Your task to perform on an android device: Open the map Image 0: 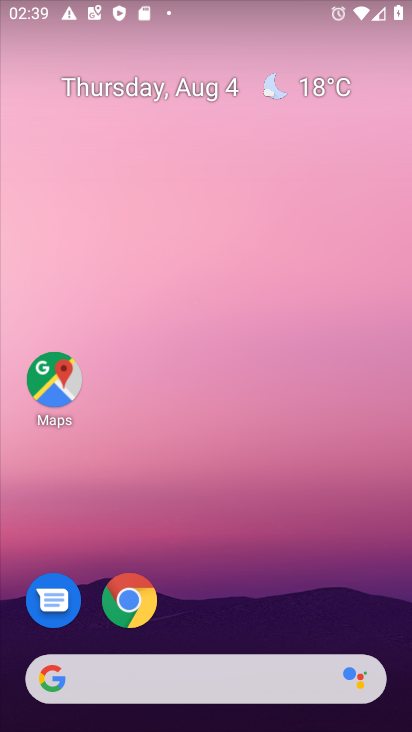
Step 0: press home button
Your task to perform on an android device: Open the map Image 1: 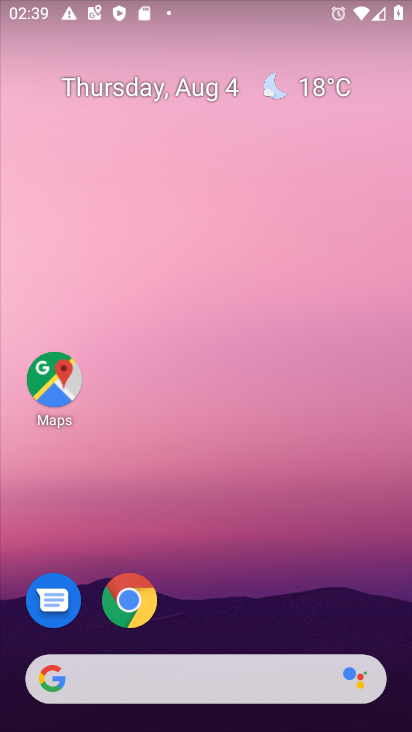
Step 1: click (54, 383)
Your task to perform on an android device: Open the map Image 2: 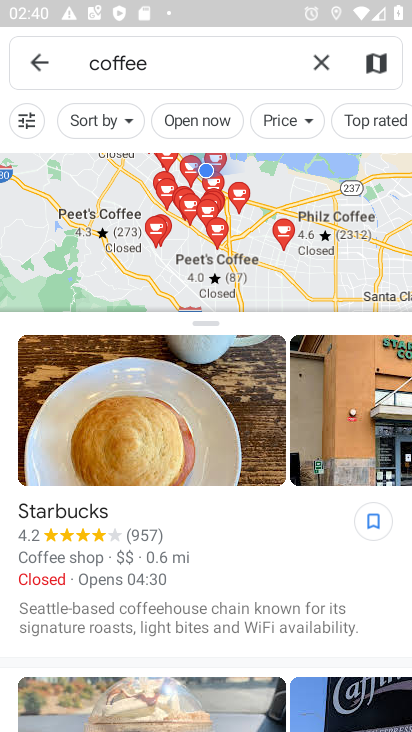
Step 2: click (41, 51)
Your task to perform on an android device: Open the map Image 3: 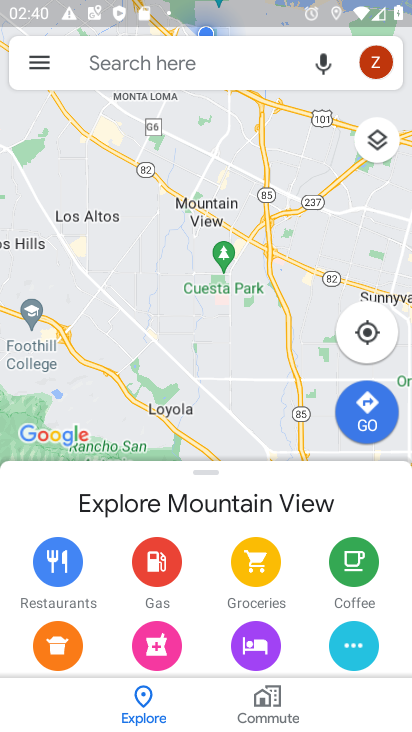
Step 3: task complete